Your task to perform on an android device: Open location settings Image 0: 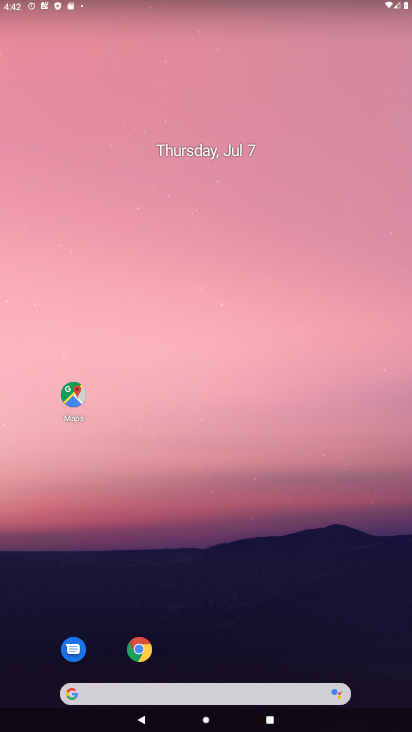
Step 0: drag from (362, 640) to (253, 49)
Your task to perform on an android device: Open location settings Image 1: 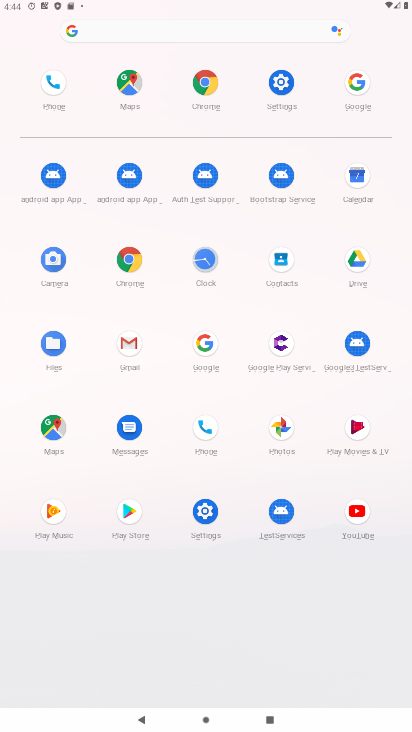
Step 1: click (210, 516)
Your task to perform on an android device: Open location settings Image 2: 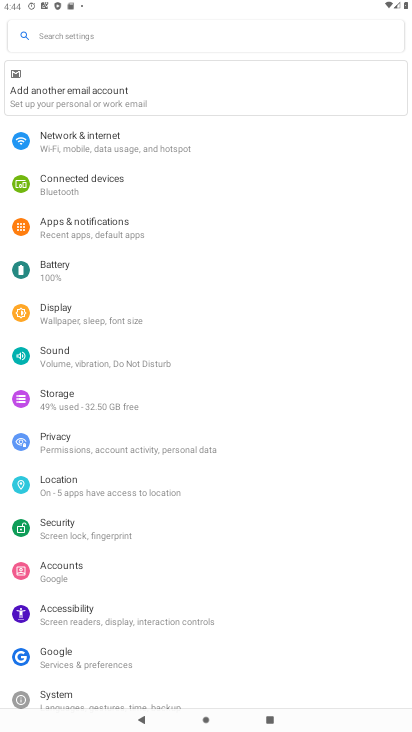
Step 2: click (83, 485)
Your task to perform on an android device: Open location settings Image 3: 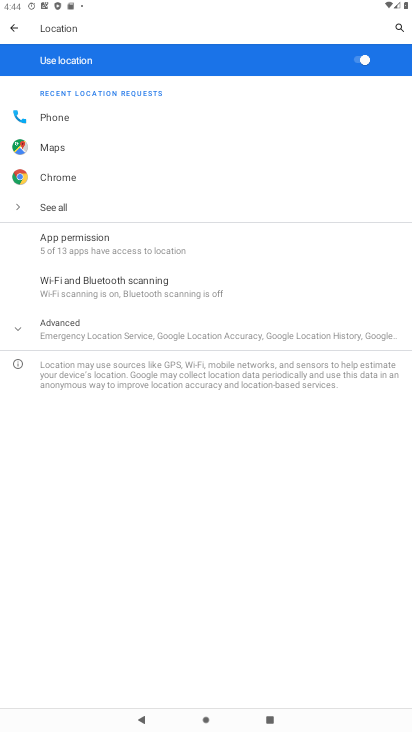
Step 3: task complete